Your task to perform on an android device: remove spam from my inbox in the gmail app Image 0: 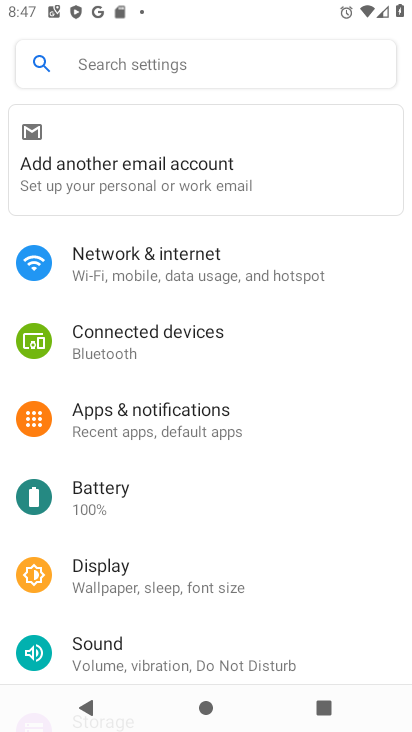
Step 0: press back button
Your task to perform on an android device: remove spam from my inbox in the gmail app Image 1: 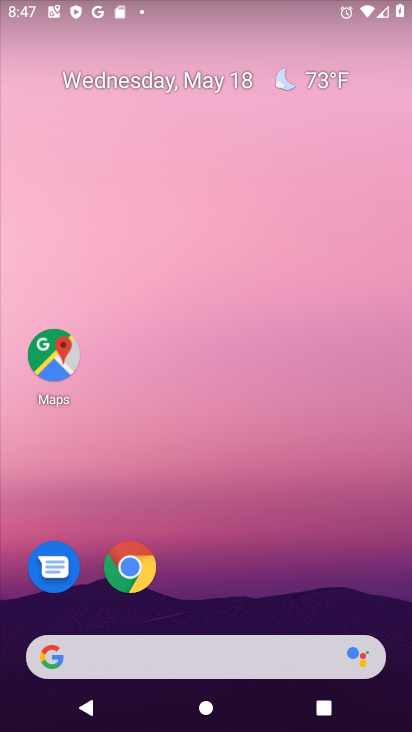
Step 1: drag from (285, 556) to (244, 9)
Your task to perform on an android device: remove spam from my inbox in the gmail app Image 2: 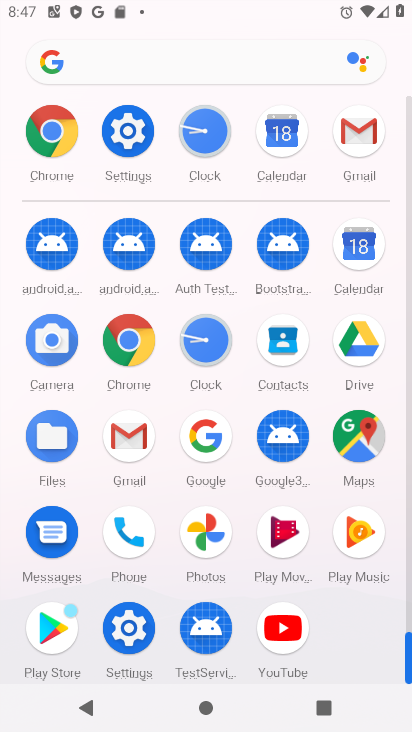
Step 2: click (130, 431)
Your task to perform on an android device: remove spam from my inbox in the gmail app Image 3: 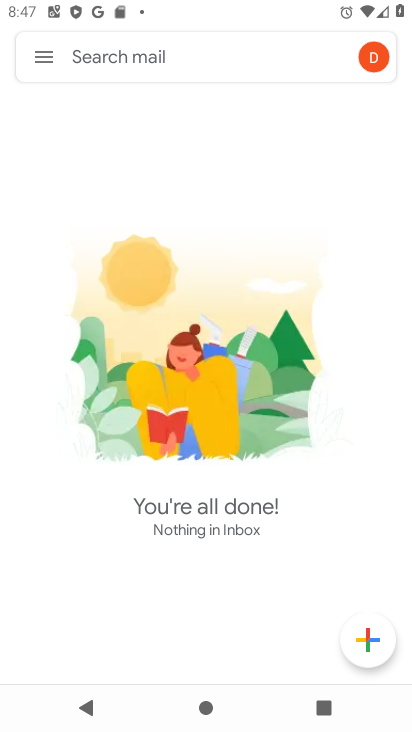
Step 3: click (47, 66)
Your task to perform on an android device: remove spam from my inbox in the gmail app Image 4: 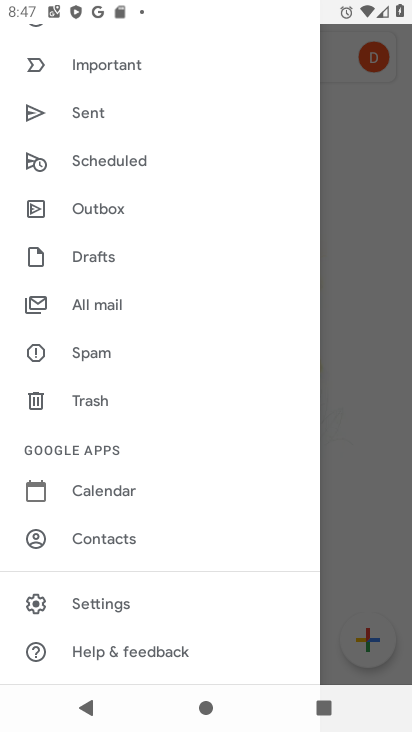
Step 4: click (72, 594)
Your task to perform on an android device: remove spam from my inbox in the gmail app Image 5: 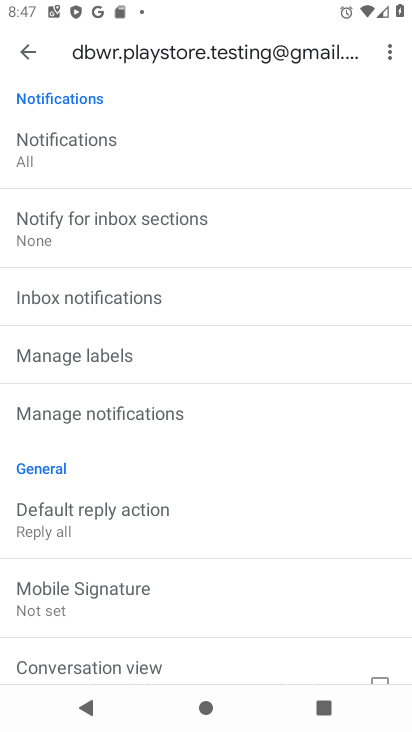
Step 5: drag from (238, 557) to (242, 161)
Your task to perform on an android device: remove spam from my inbox in the gmail app Image 6: 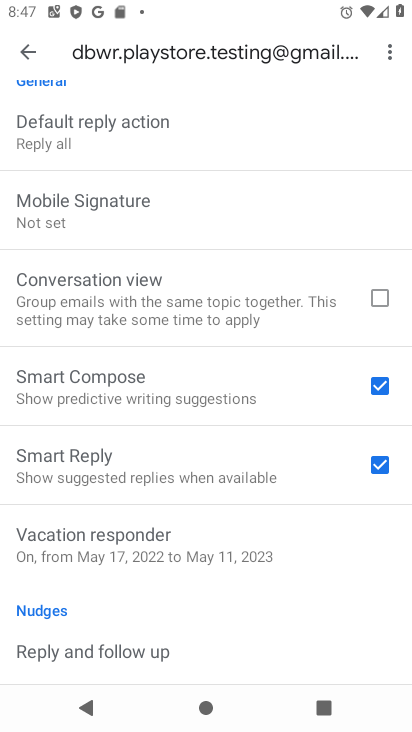
Step 6: drag from (221, 507) to (261, 130)
Your task to perform on an android device: remove spam from my inbox in the gmail app Image 7: 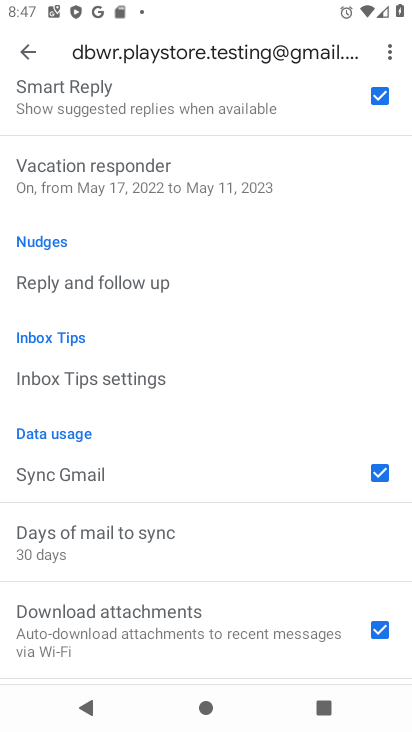
Step 7: click (20, 48)
Your task to perform on an android device: remove spam from my inbox in the gmail app Image 8: 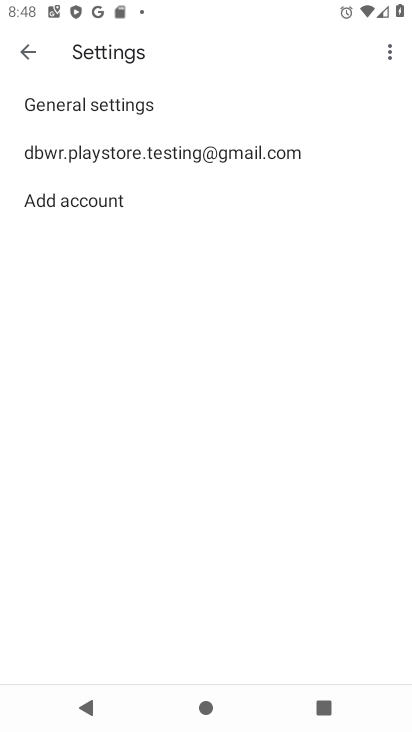
Step 8: click (20, 48)
Your task to perform on an android device: remove spam from my inbox in the gmail app Image 9: 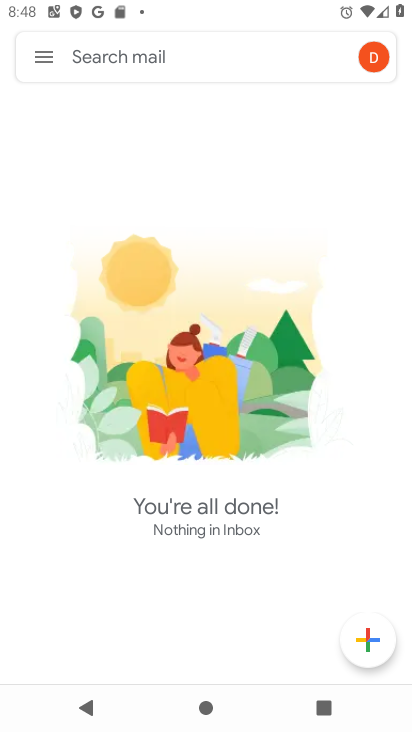
Step 9: click (36, 54)
Your task to perform on an android device: remove spam from my inbox in the gmail app Image 10: 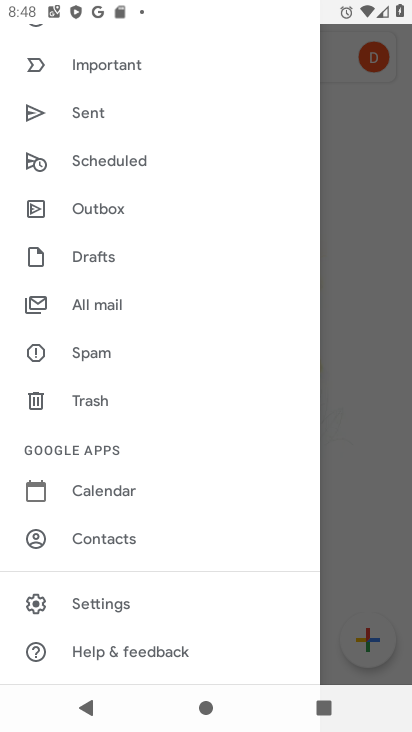
Step 10: click (122, 344)
Your task to perform on an android device: remove spam from my inbox in the gmail app Image 11: 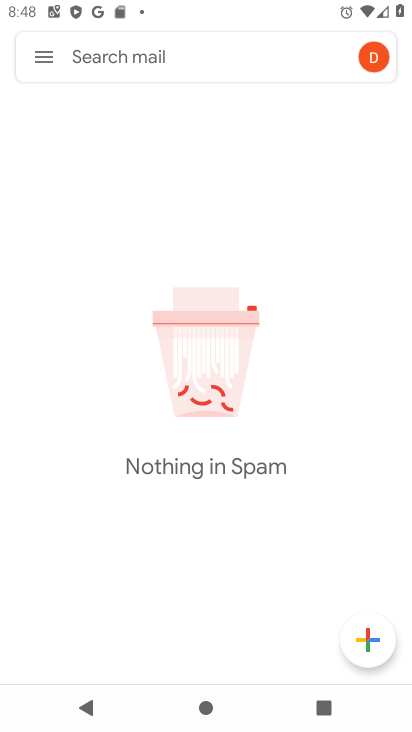
Step 11: task complete